Your task to perform on an android device: clear all cookies in the chrome app Image 0: 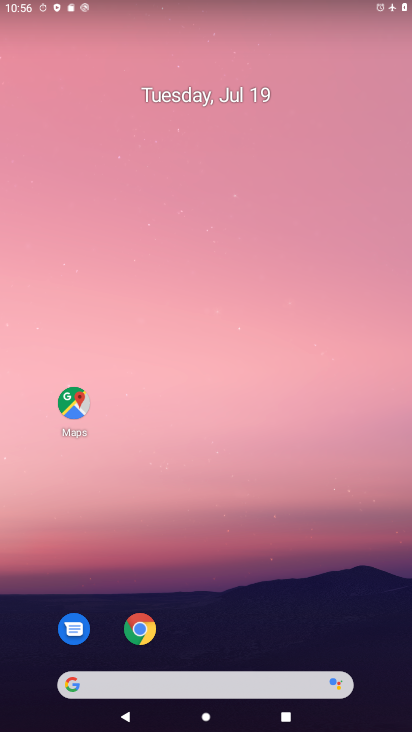
Step 0: drag from (253, 616) to (212, 109)
Your task to perform on an android device: clear all cookies in the chrome app Image 1: 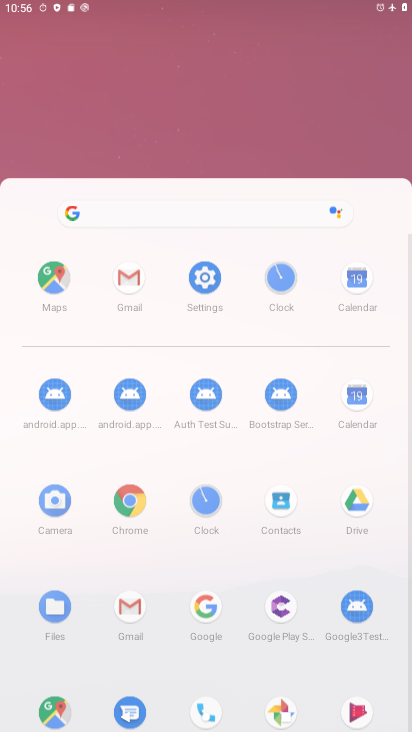
Step 1: drag from (248, 574) to (169, 173)
Your task to perform on an android device: clear all cookies in the chrome app Image 2: 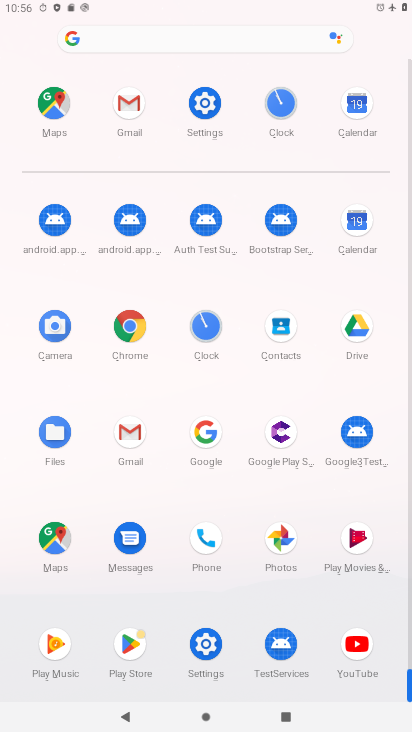
Step 2: drag from (124, 1) to (196, 16)
Your task to perform on an android device: clear all cookies in the chrome app Image 3: 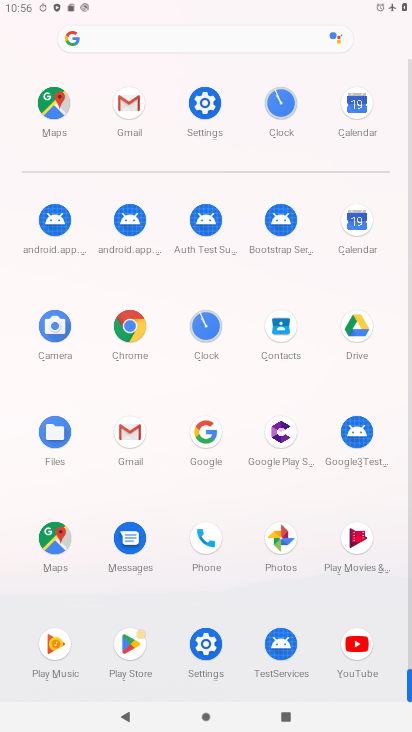
Step 3: click (129, 335)
Your task to perform on an android device: clear all cookies in the chrome app Image 4: 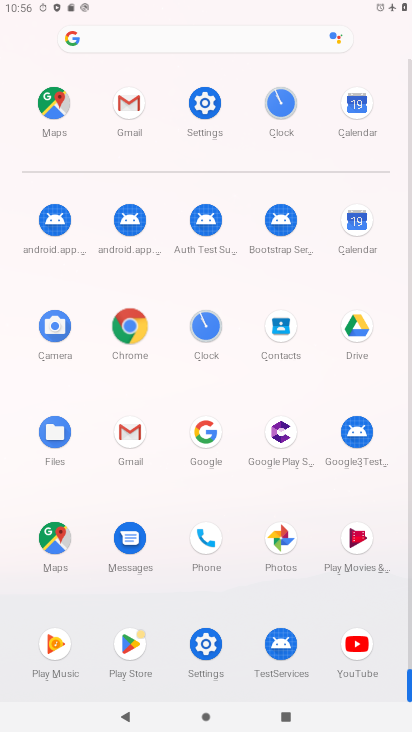
Step 4: click (130, 334)
Your task to perform on an android device: clear all cookies in the chrome app Image 5: 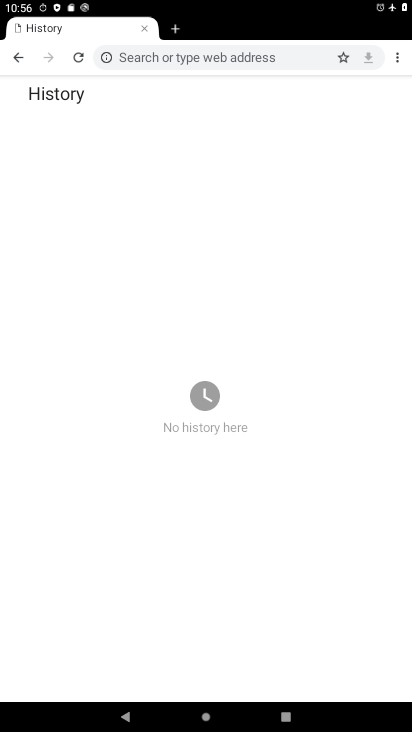
Step 5: drag from (400, 61) to (279, 262)
Your task to perform on an android device: clear all cookies in the chrome app Image 6: 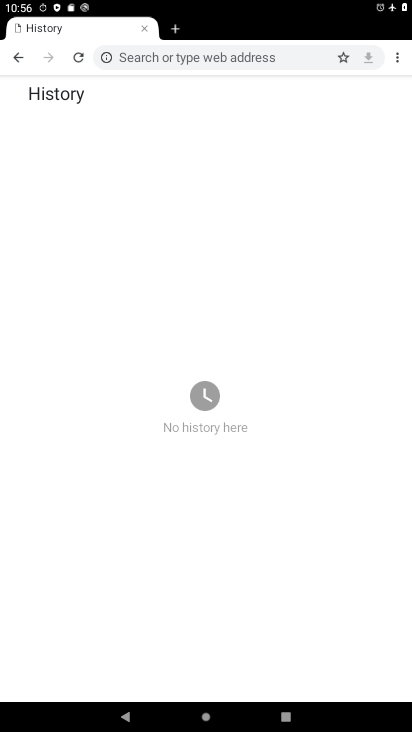
Step 6: click (280, 263)
Your task to perform on an android device: clear all cookies in the chrome app Image 7: 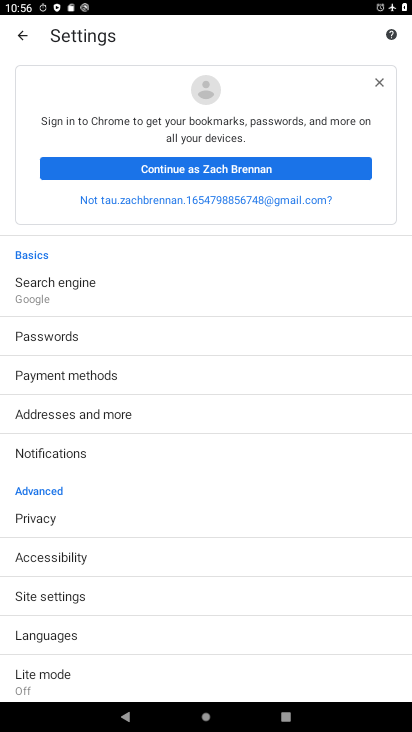
Step 7: drag from (65, 512) to (80, 264)
Your task to perform on an android device: clear all cookies in the chrome app Image 8: 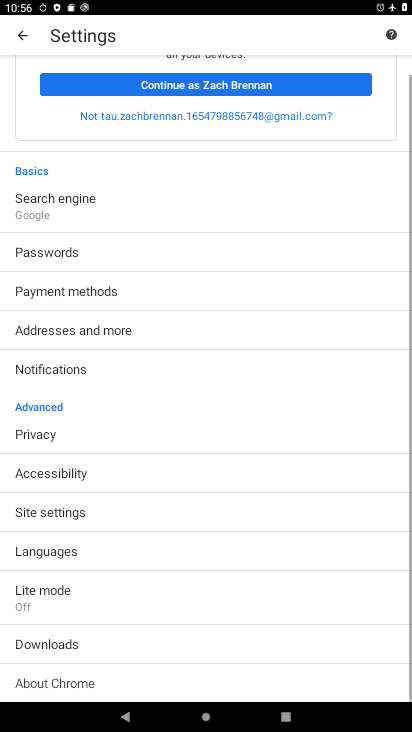
Step 8: drag from (95, 598) to (134, 148)
Your task to perform on an android device: clear all cookies in the chrome app Image 9: 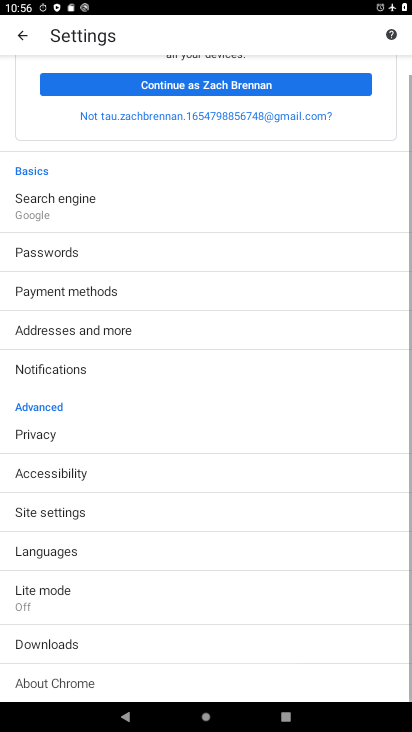
Step 9: drag from (58, 616) to (57, 233)
Your task to perform on an android device: clear all cookies in the chrome app Image 10: 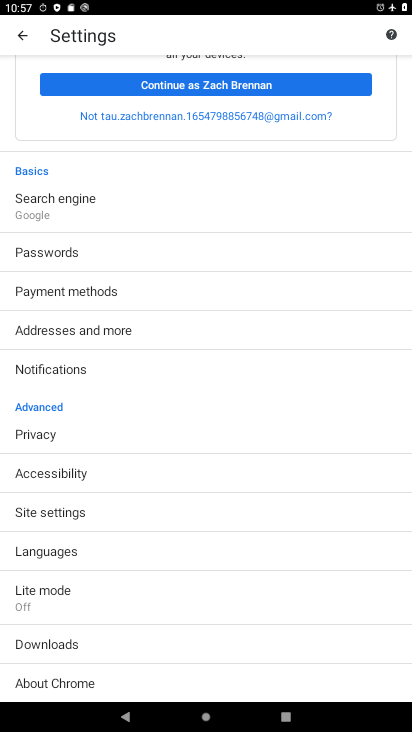
Step 10: click (36, 507)
Your task to perform on an android device: clear all cookies in the chrome app Image 11: 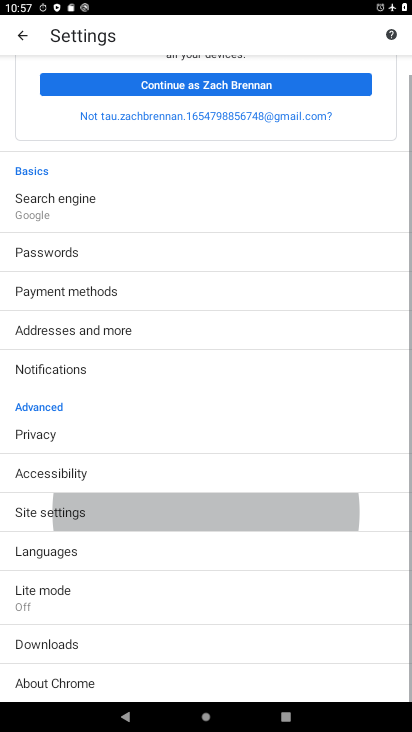
Step 11: click (44, 514)
Your task to perform on an android device: clear all cookies in the chrome app Image 12: 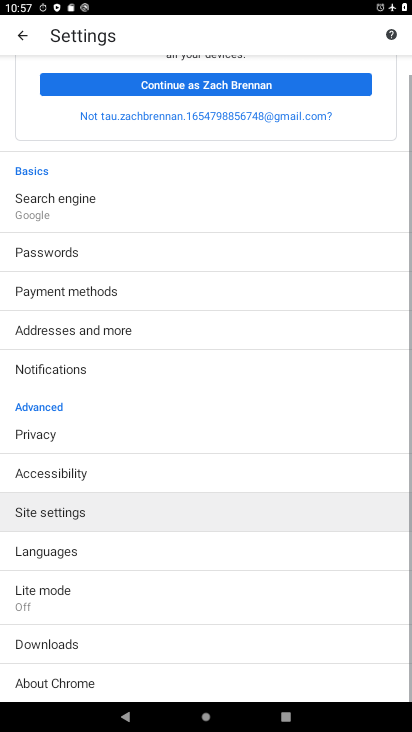
Step 12: click (47, 515)
Your task to perform on an android device: clear all cookies in the chrome app Image 13: 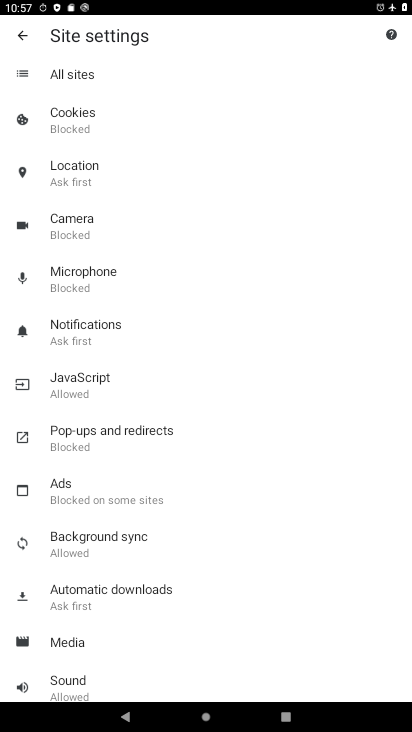
Step 13: click (77, 124)
Your task to perform on an android device: clear all cookies in the chrome app Image 14: 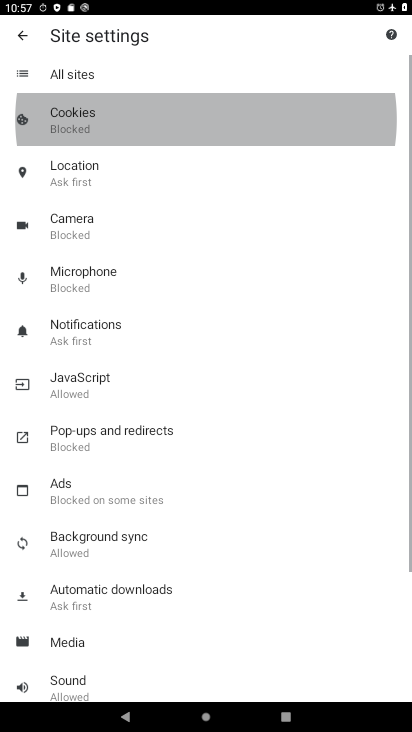
Step 14: click (77, 124)
Your task to perform on an android device: clear all cookies in the chrome app Image 15: 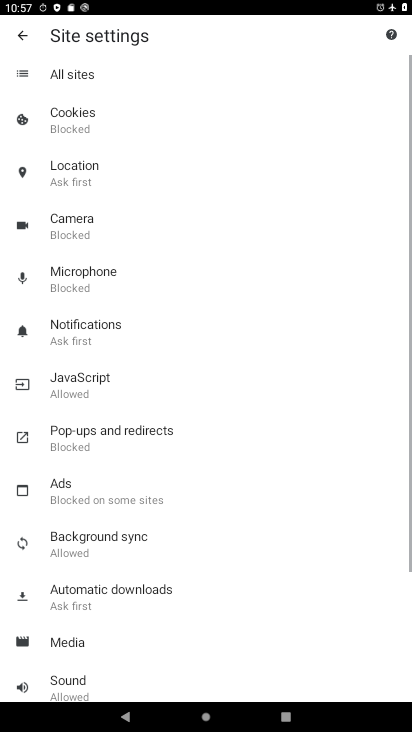
Step 15: click (78, 121)
Your task to perform on an android device: clear all cookies in the chrome app Image 16: 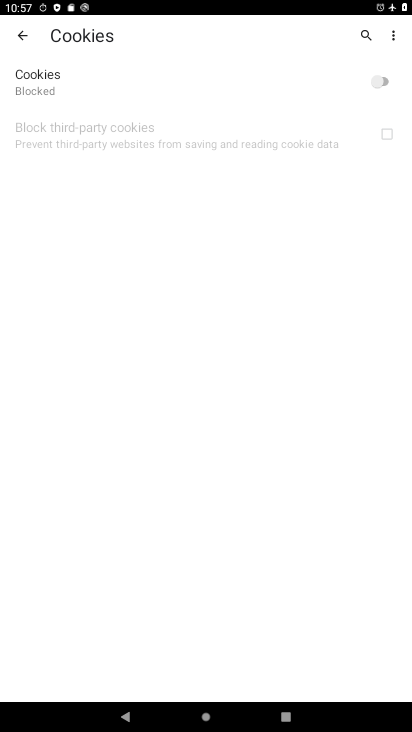
Step 16: click (379, 82)
Your task to perform on an android device: clear all cookies in the chrome app Image 17: 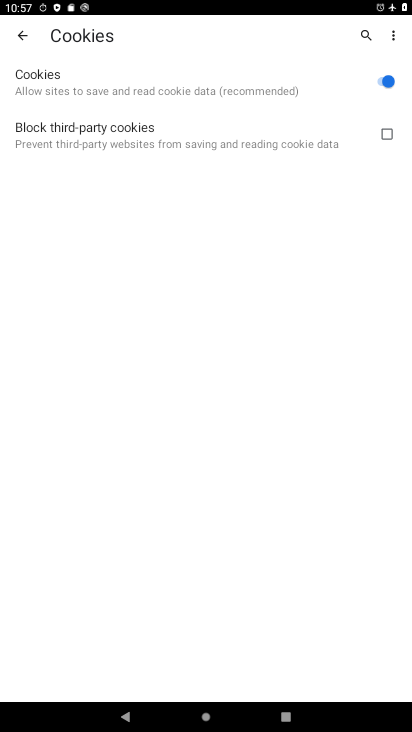
Step 17: task complete